Your task to perform on an android device: Go to Maps Image 0: 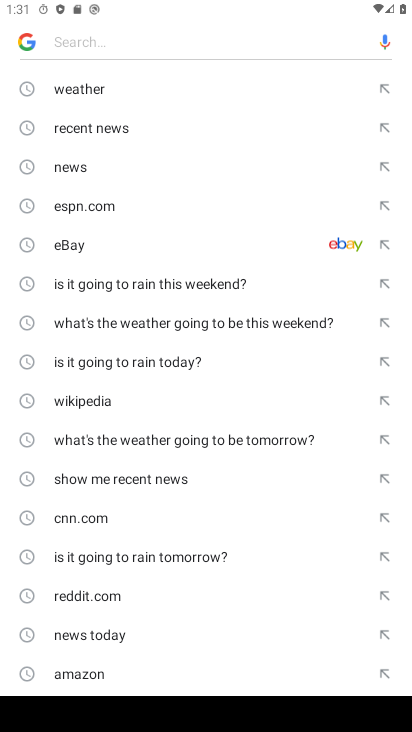
Step 0: press home button
Your task to perform on an android device: Go to Maps Image 1: 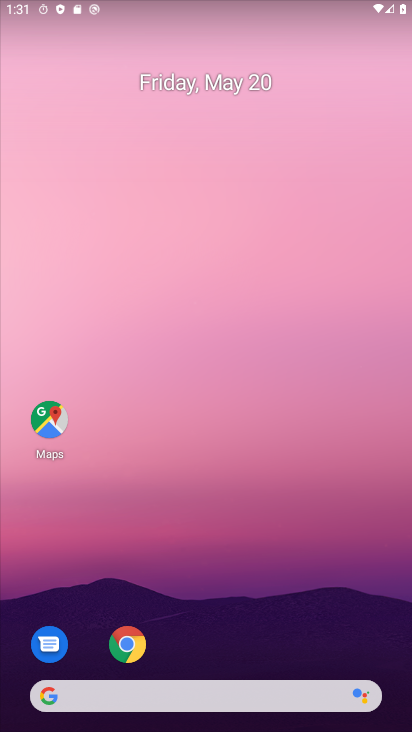
Step 1: click (59, 436)
Your task to perform on an android device: Go to Maps Image 2: 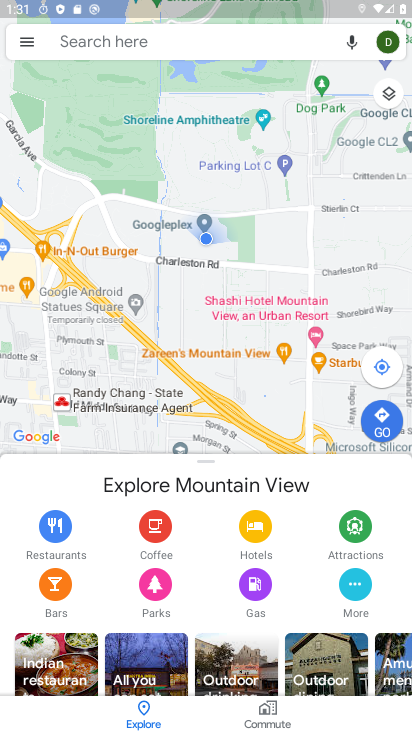
Step 2: task complete